Your task to perform on an android device: change the upload size in google photos Image 0: 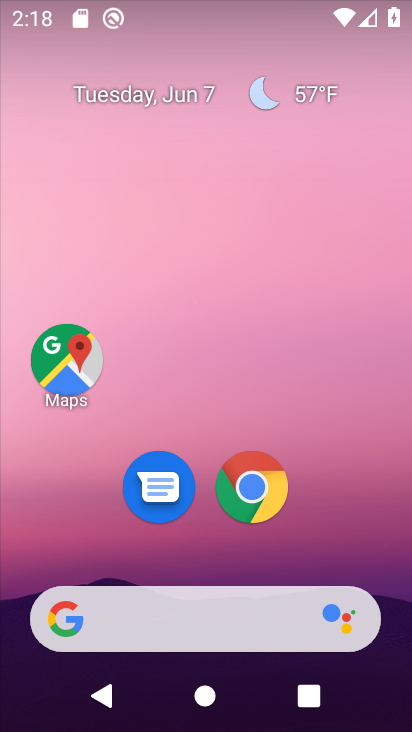
Step 0: drag from (224, 565) to (384, 5)
Your task to perform on an android device: change the upload size in google photos Image 1: 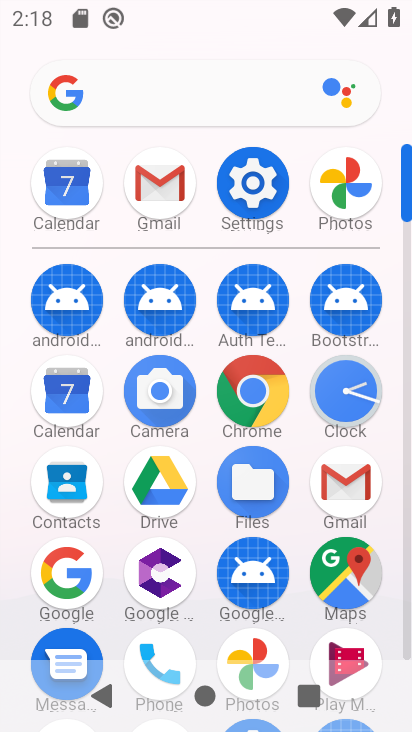
Step 1: click (266, 654)
Your task to perform on an android device: change the upload size in google photos Image 2: 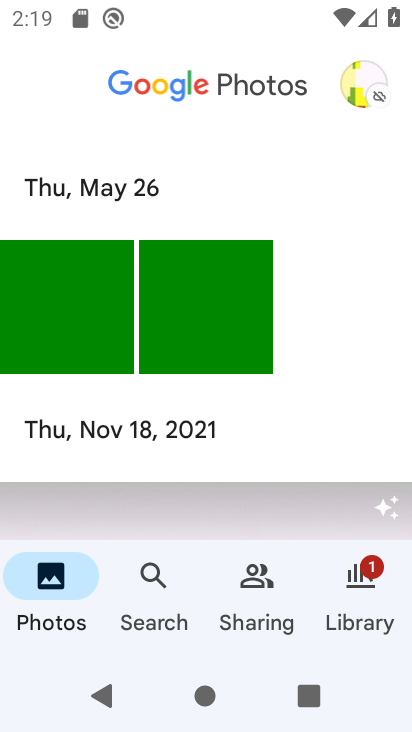
Step 2: click (354, 87)
Your task to perform on an android device: change the upload size in google photos Image 3: 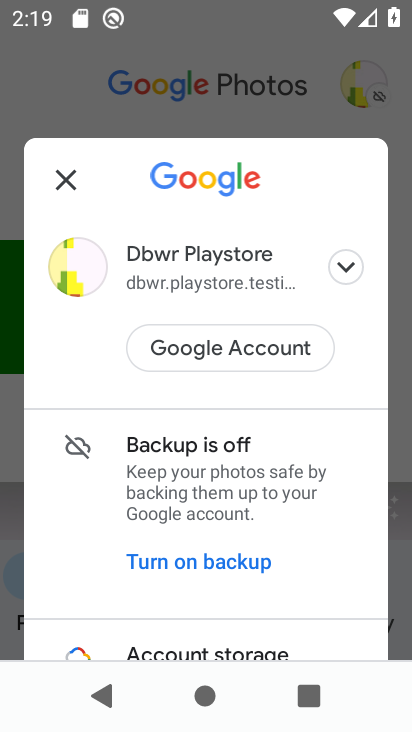
Step 3: drag from (189, 571) to (161, 83)
Your task to perform on an android device: change the upload size in google photos Image 4: 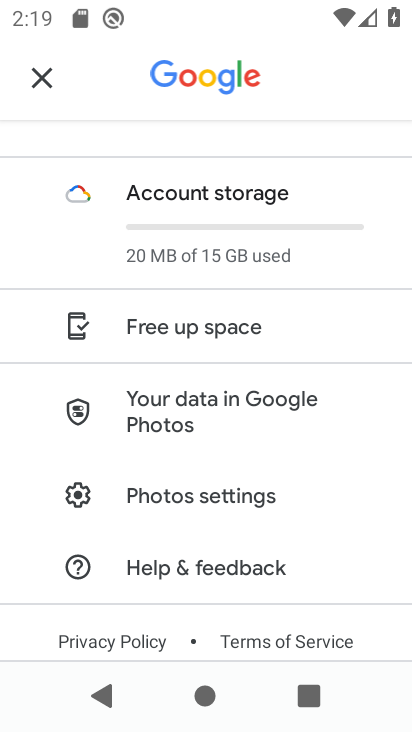
Step 4: click (183, 500)
Your task to perform on an android device: change the upload size in google photos Image 5: 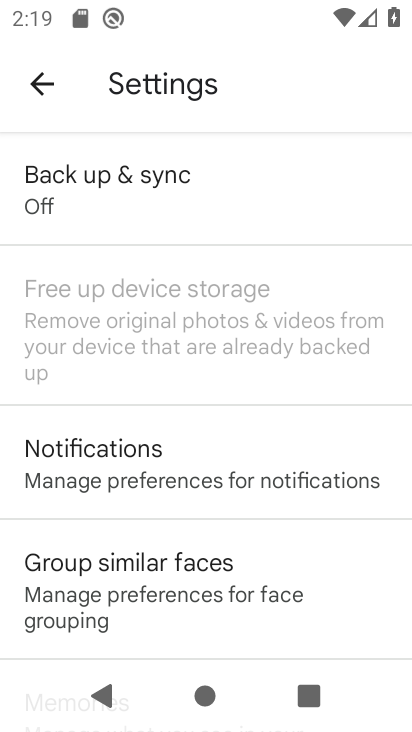
Step 5: click (97, 181)
Your task to perform on an android device: change the upload size in google photos Image 6: 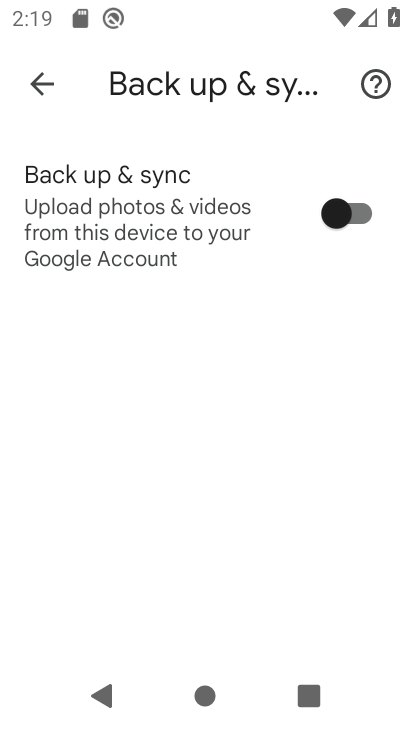
Step 6: click (332, 220)
Your task to perform on an android device: change the upload size in google photos Image 7: 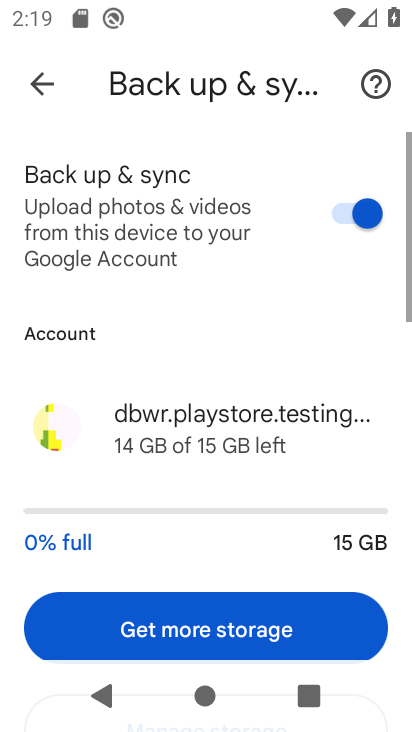
Step 7: drag from (279, 458) to (228, 6)
Your task to perform on an android device: change the upload size in google photos Image 8: 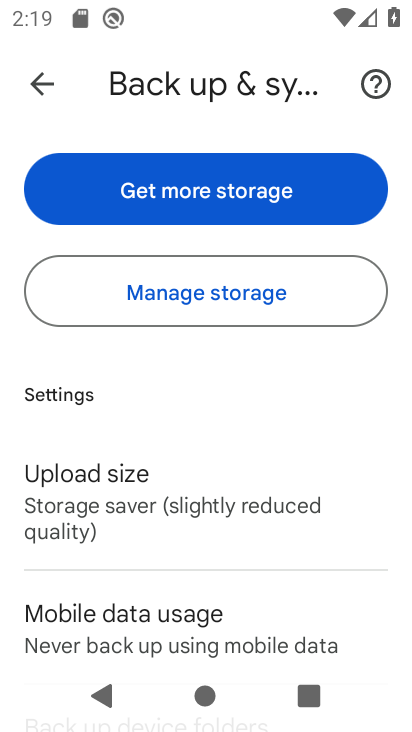
Step 8: click (196, 530)
Your task to perform on an android device: change the upload size in google photos Image 9: 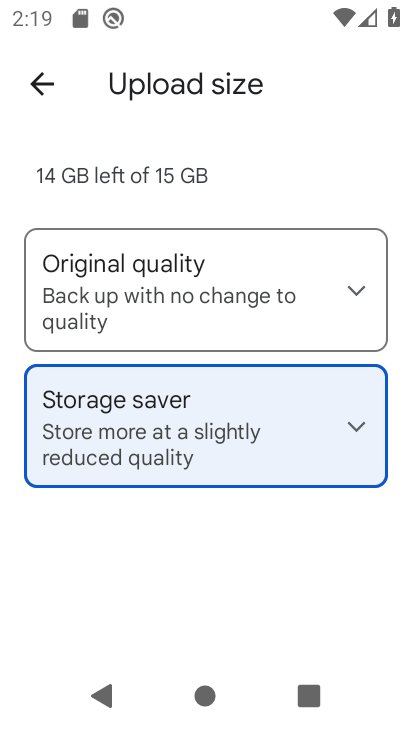
Step 9: click (156, 314)
Your task to perform on an android device: change the upload size in google photos Image 10: 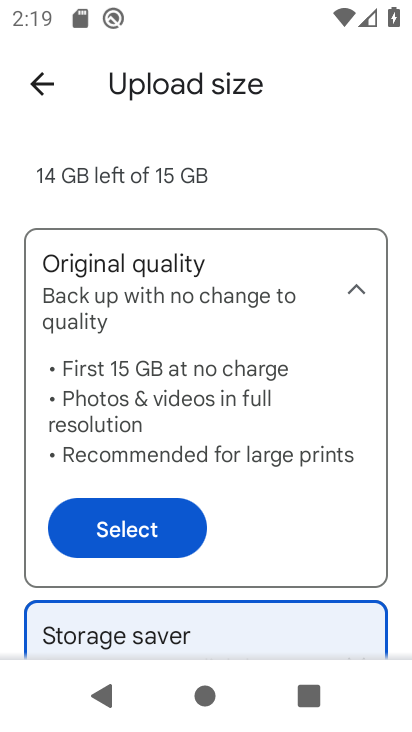
Step 10: click (161, 517)
Your task to perform on an android device: change the upload size in google photos Image 11: 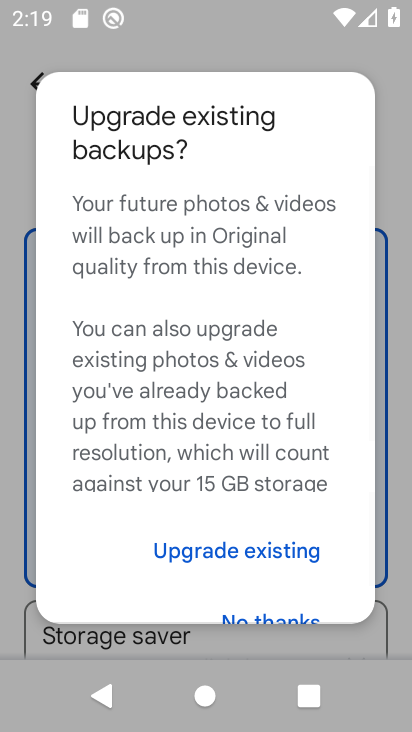
Step 11: drag from (198, 566) to (148, 149)
Your task to perform on an android device: change the upload size in google photos Image 12: 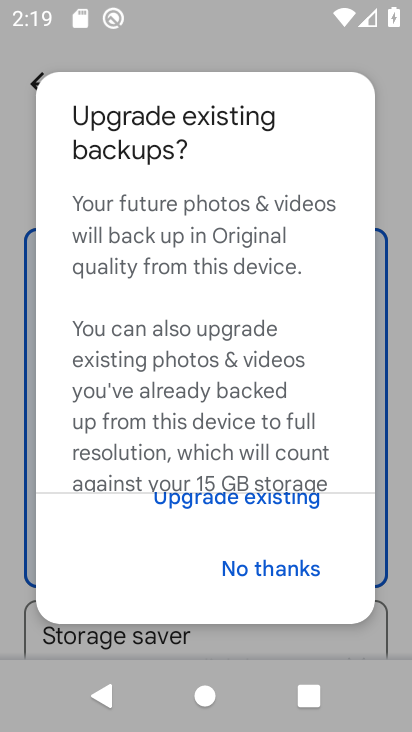
Step 12: click (250, 514)
Your task to perform on an android device: change the upload size in google photos Image 13: 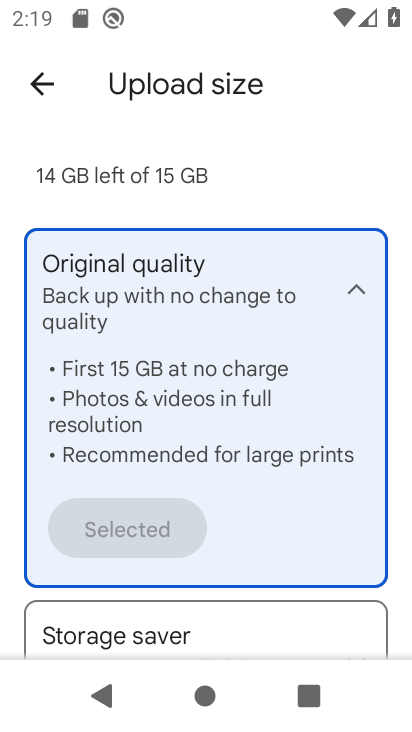
Step 13: task complete